Your task to perform on an android device: turn off location Image 0: 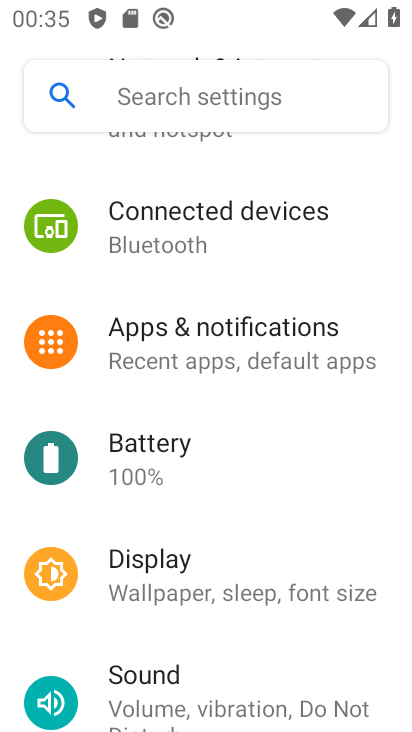
Step 0: drag from (226, 553) to (272, 58)
Your task to perform on an android device: turn off location Image 1: 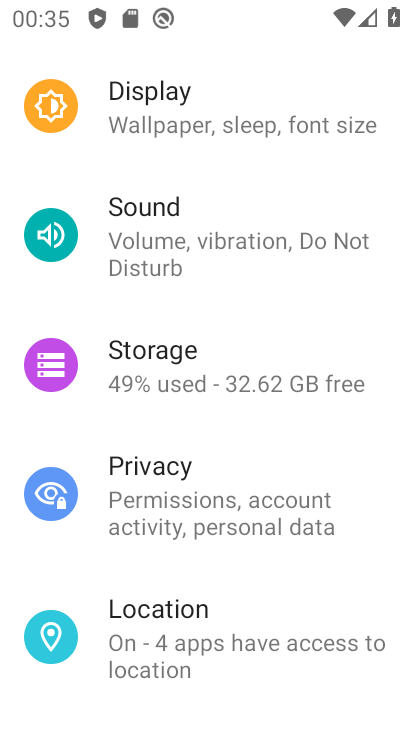
Step 1: click (189, 635)
Your task to perform on an android device: turn off location Image 2: 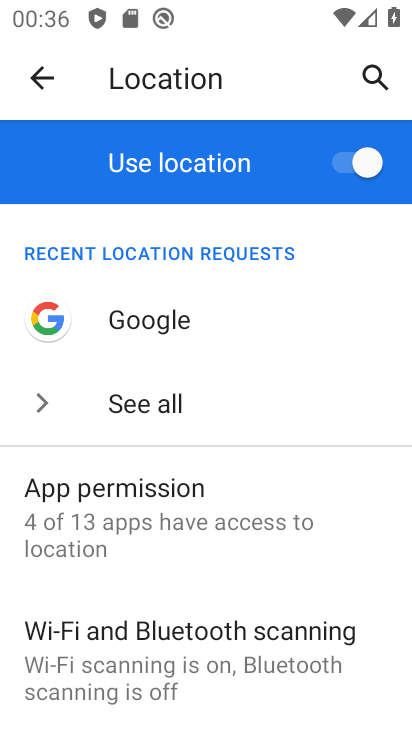
Step 2: task complete